Your task to perform on an android device: toggle notification dots Image 0: 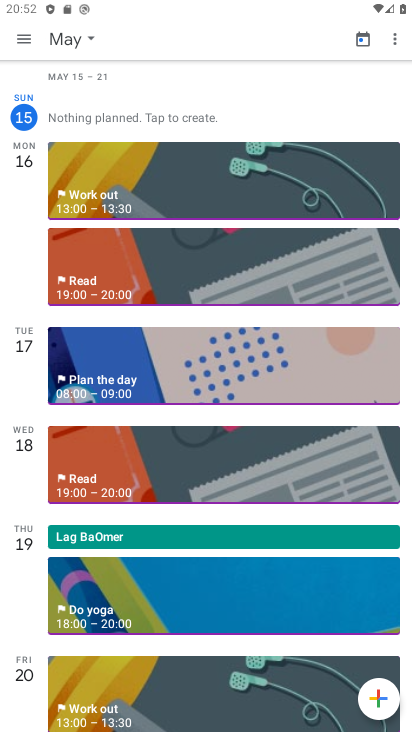
Step 0: press back button
Your task to perform on an android device: toggle notification dots Image 1: 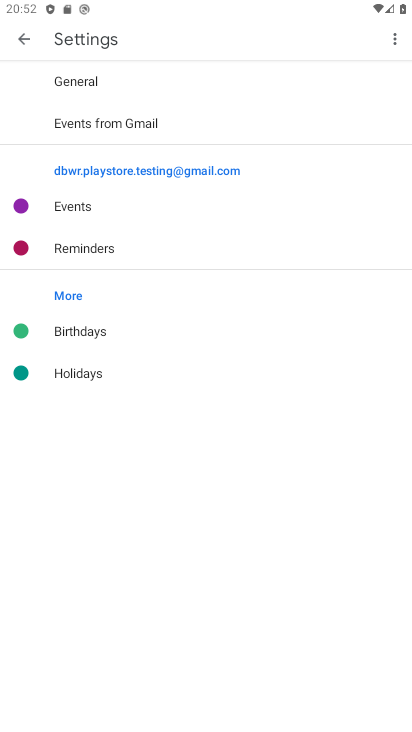
Step 1: press back button
Your task to perform on an android device: toggle notification dots Image 2: 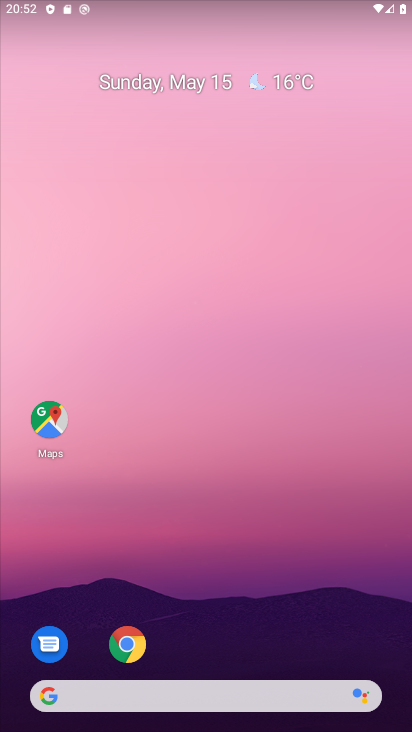
Step 2: drag from (191, 666) to (293, 180)
Your task to perform on an android device: toggle notification dots Image 3: 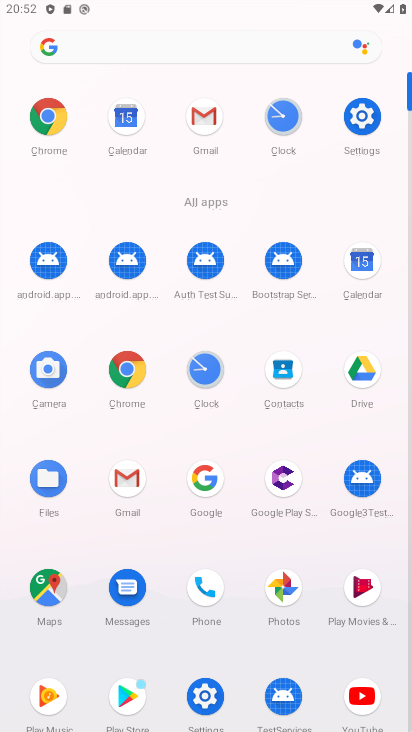
Step 3: click (351, 118)
Your task to perform on an android device: toggle notification dots Image 4: 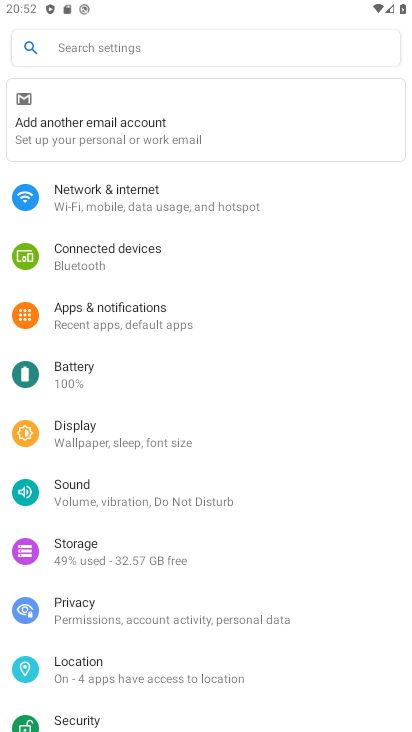
Step 4: click (132, 322)
Your task to perform on an android device: toggle notification dots Image 5: 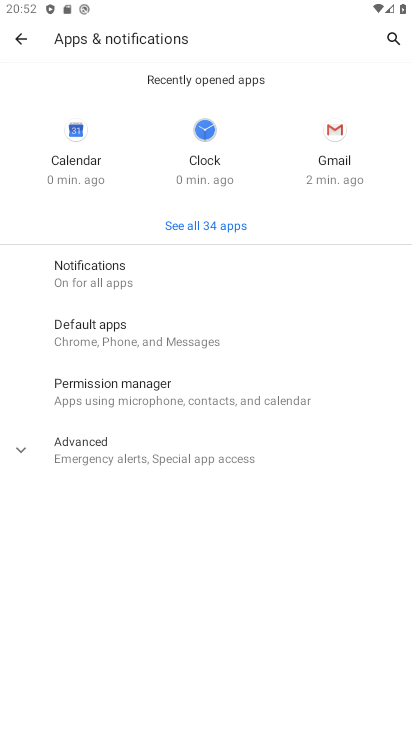
Step 5: click (148, 270)
Your task to perform on an android device: toggle notification dots Image 6: 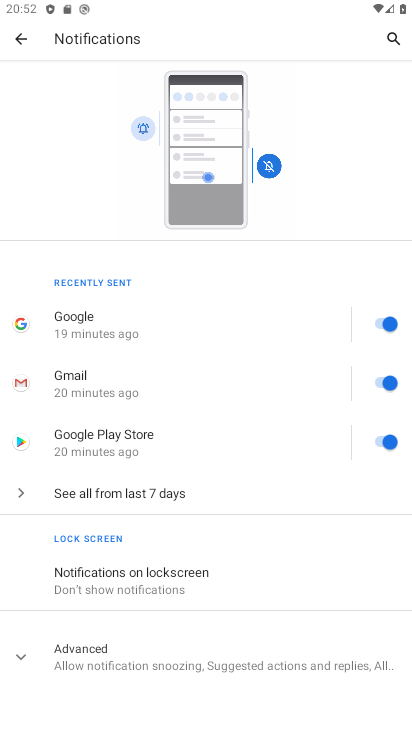
Step 6: drag from (196, 583) to (293, 154)
Your task to perform on an android device: toggle notification dots Image 7: 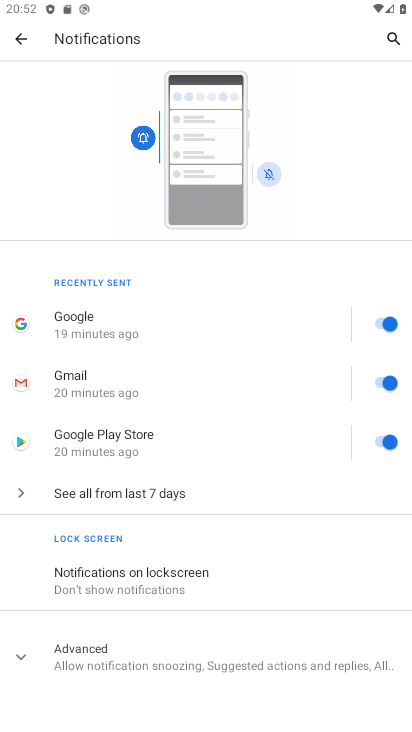
Step 7: click (177, 654)
Your task to perform on an android device: toggle notification dots Image 8: 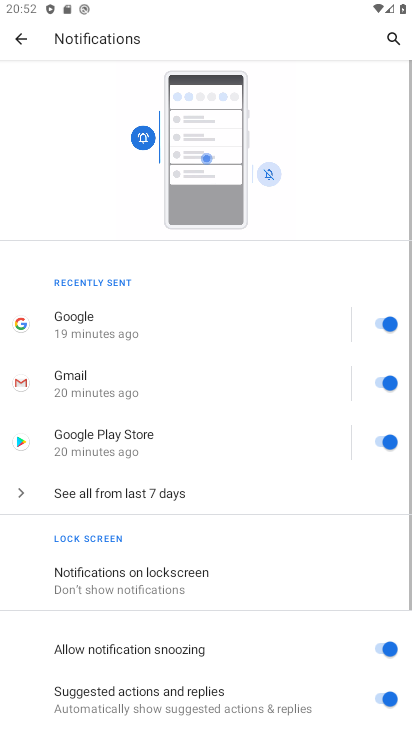
Step 8: drag from (174, 645) to (269, 203)
Your task to perform on an android device: toggle notification dots Image 9: 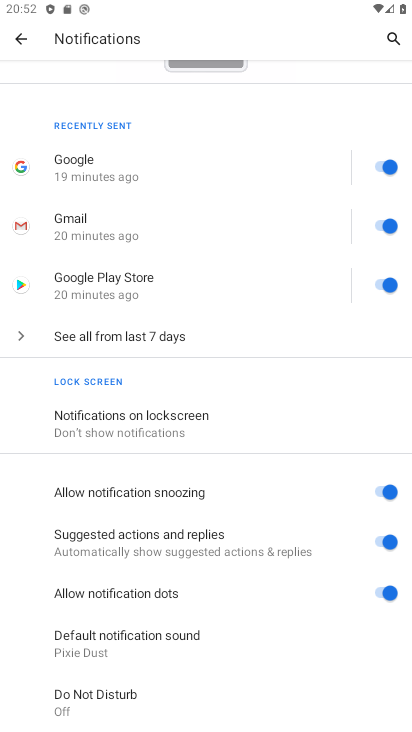
Step 9: click (393, 596)
Your task to perform on an android device: toggle notification dots Image 10: 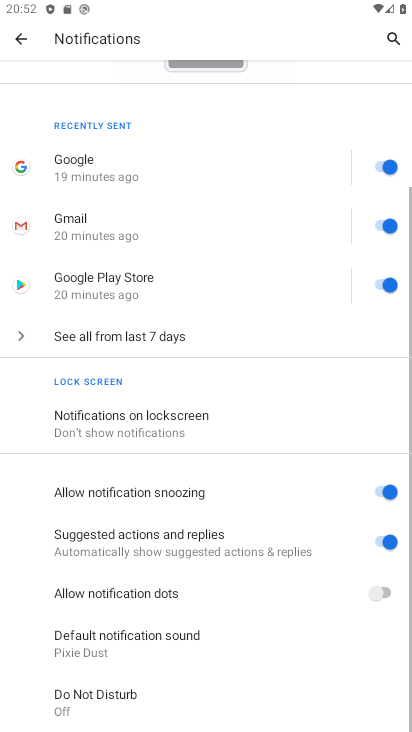
Step 10: task complete